Your task to perform on an android device: Toggle the flashlight Image 0: 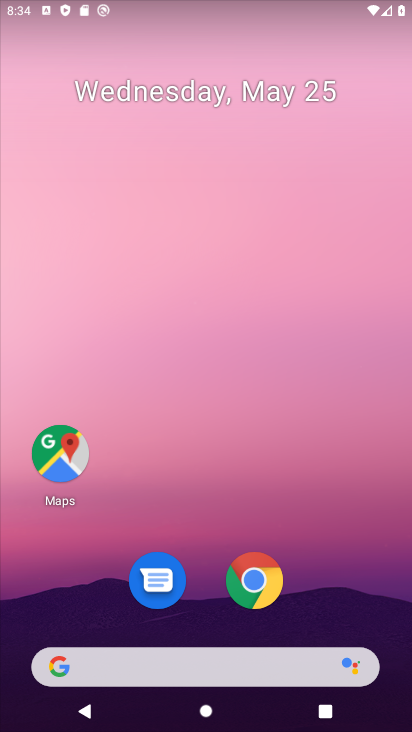
Step 0: drag from (32, 551) to (222, 225)
Your task to perform on an android device: Toggle the flashlight Image 1: 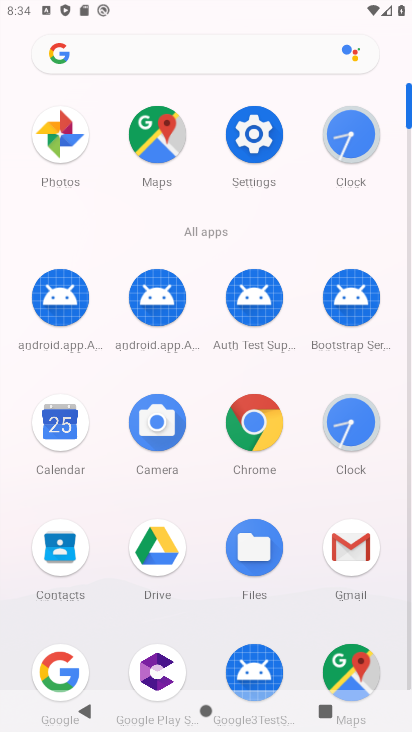
Step 1: click (254, 140)
Your task to perform on an android device: Toggle the flashlight Image 2: 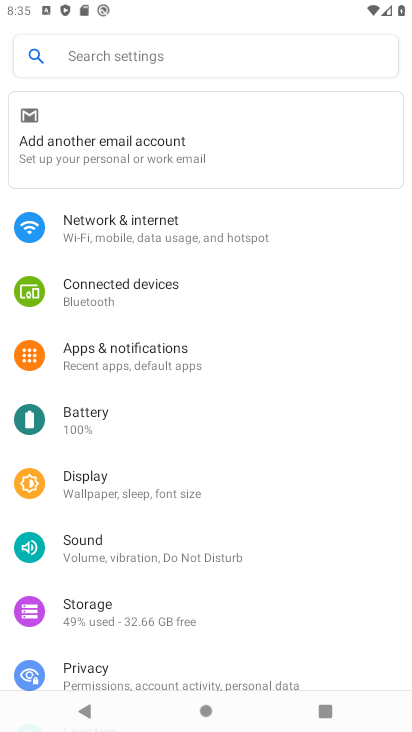
Step 2: click (119, 551)
Your task to perform on an android device: Toggle the flashlight Image 3: 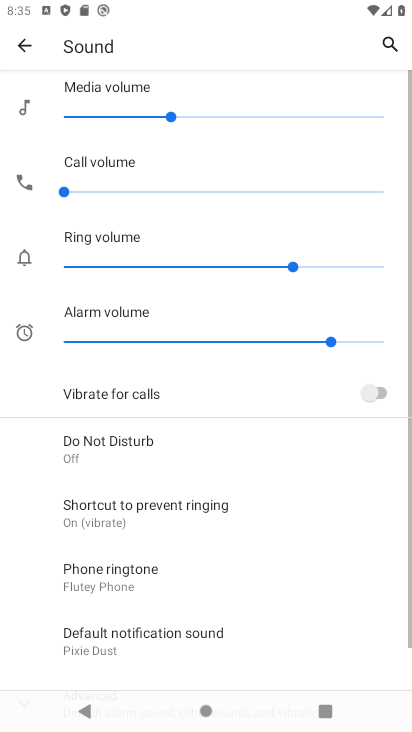
Step 3: task complete